Your task to perform on an android device: Open CNN.com Image 0: 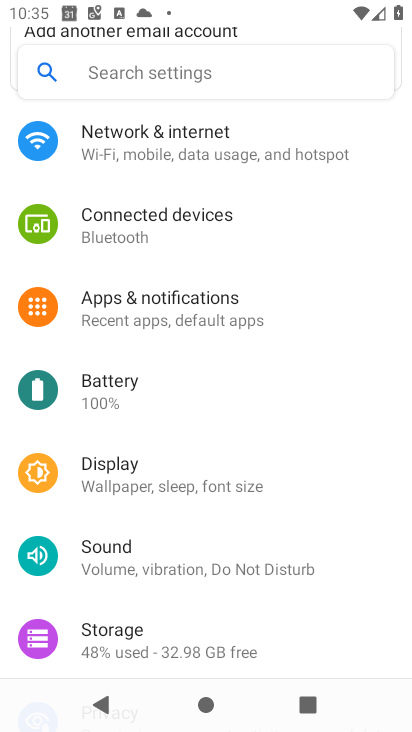
Step 0: press home button
Your task to perform on an android device: Open CNN.com Image 1: 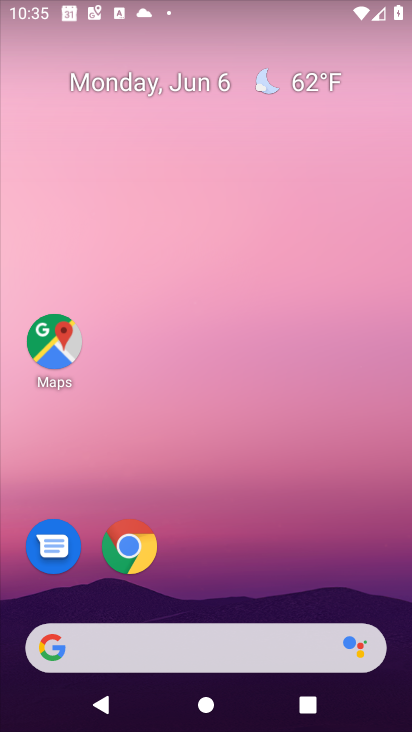
Step 1: click (130, 546)
Your task to perform on an android device: Open CNN.com Image 2: 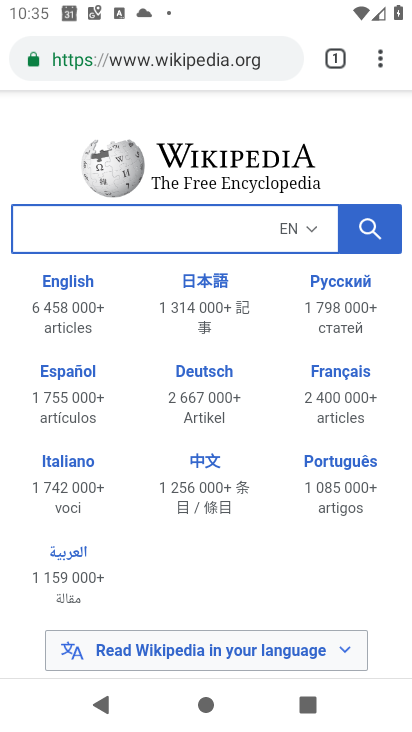
Step 2: click (269, 51)
Your task to perform on an android device: Open CNN.com Image 3: 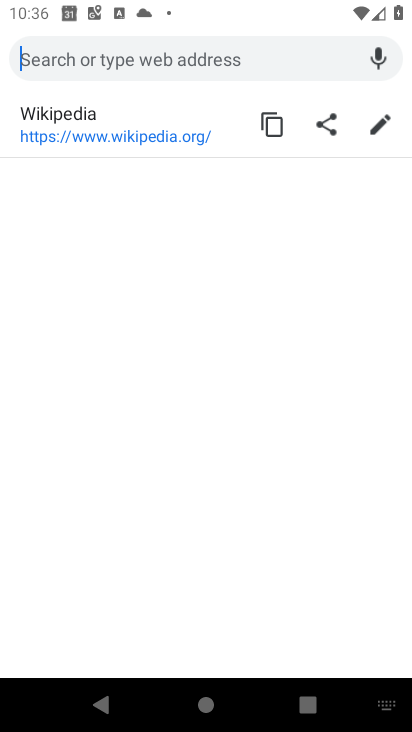
Step 3: type "cnn.com"
Your task to perform on an android device: Open CNN.com Image 4: 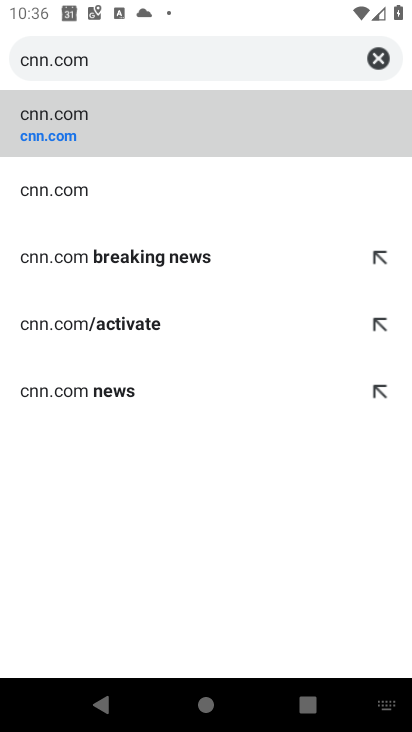
Step 4: click (138, 121)
Your task to perform on an android device: Open CNN.com Image 5: 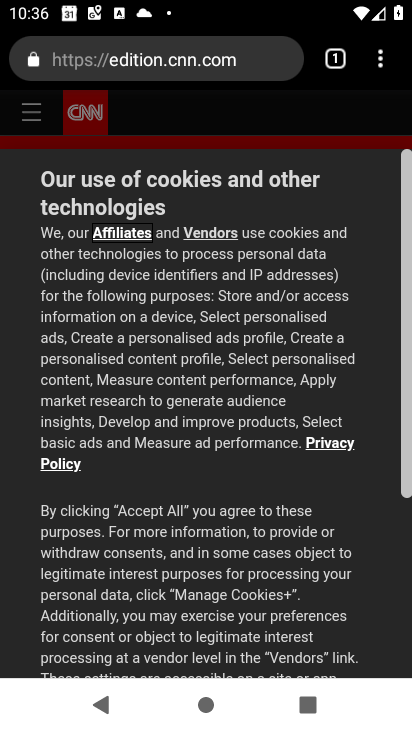
Step 5: task complete